Your task to perform on an android device: turn on wifi Image 0: 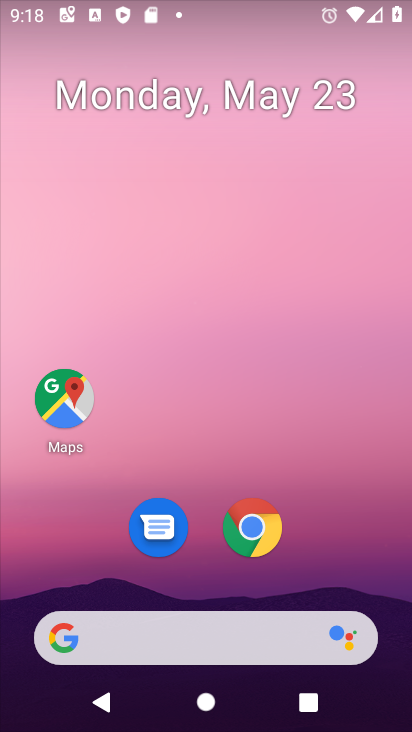
Step 0: drag from (339, 519) to (271, 24)
Your task to perform on an android device: turn on wifi Image 1: 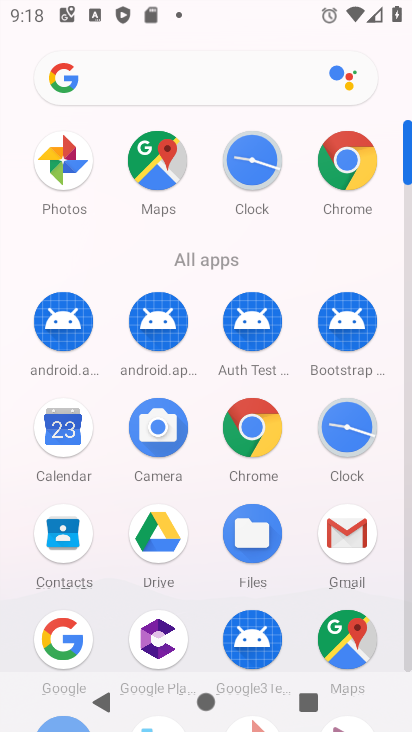
Step 1: drag from (18, 572) to (47, 253)
Your task to perform on an android device: turn on wifi Image 2: 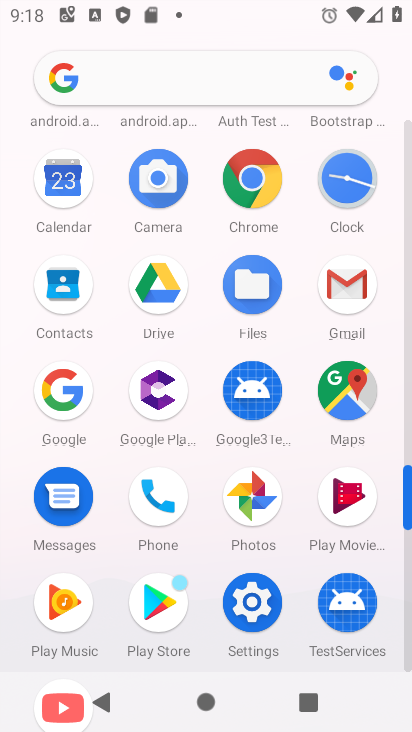
Step 2: click (248, 598)
Your task to perform on an android device: turn on wifi Image 3: 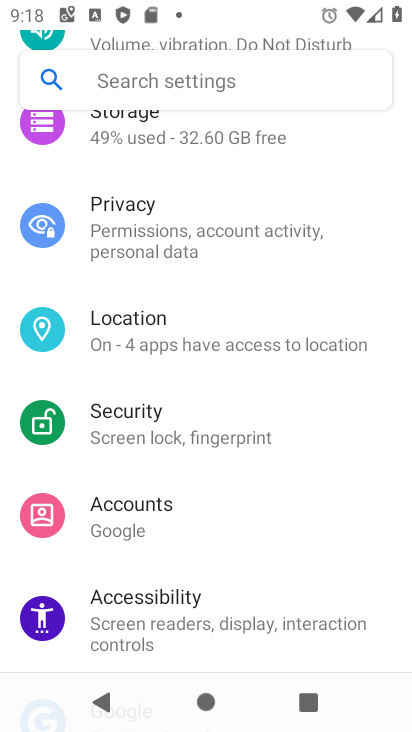
Step 3: drag from (293, 187) to (292, 617)
Your task to perform on an android device: turn on wifi Image 4: 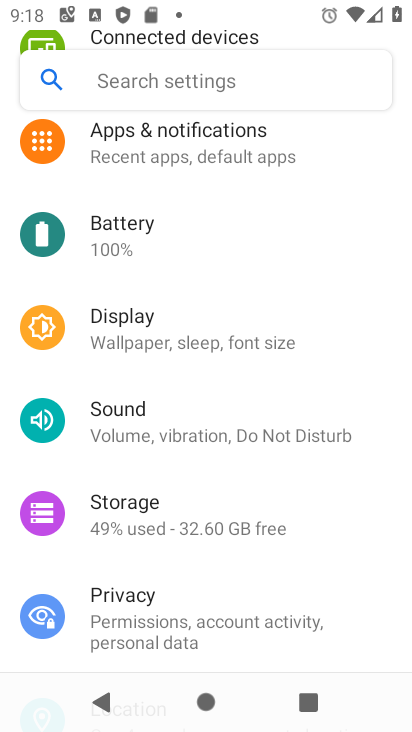
Step 4: drag from (281, 223) to (255, 650)
Your task to perform on an android device: turn on wifi Image 5: 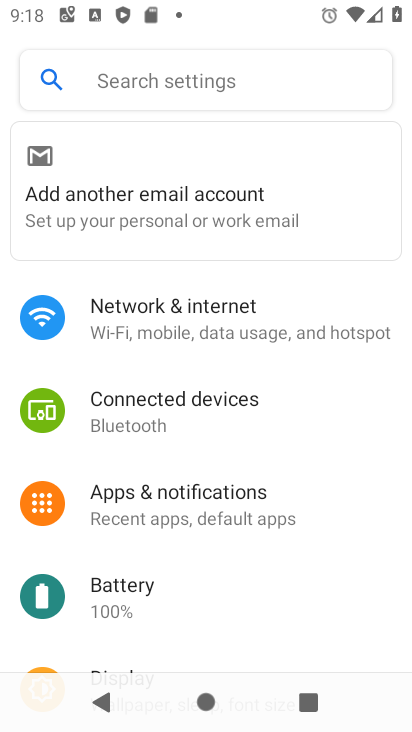
Step 5: click (222, 314)
Your task to perform on an android device: turn on wifi Image 6: 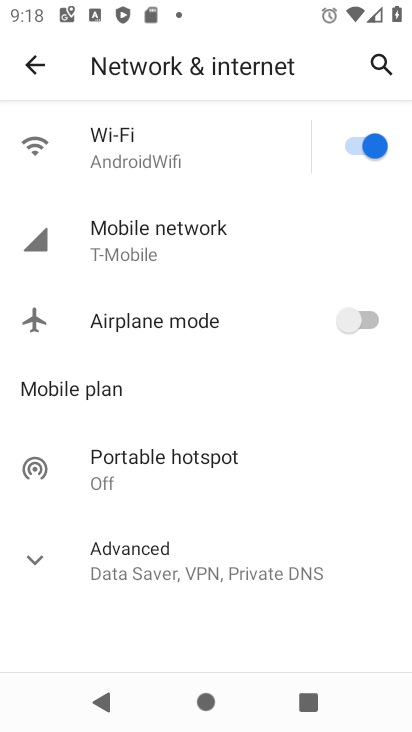
Step 6: task complete